Your task to perform on an android device: toggle priority inbox in the gmail app Image 0: 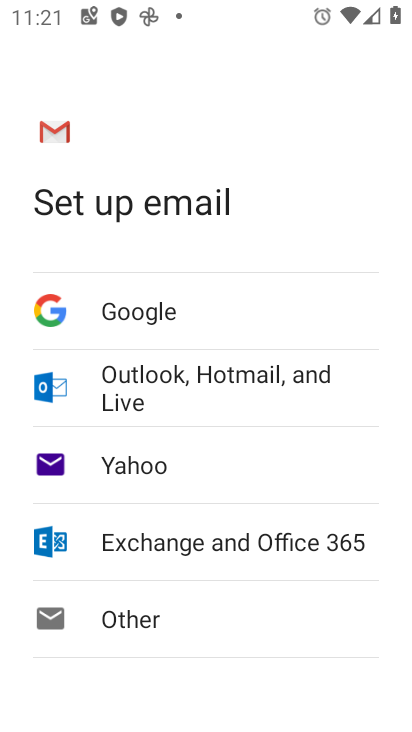
Step 0: press home button
Your task to perform on an android device: toggle priority inbox in the gmail app Image 1: 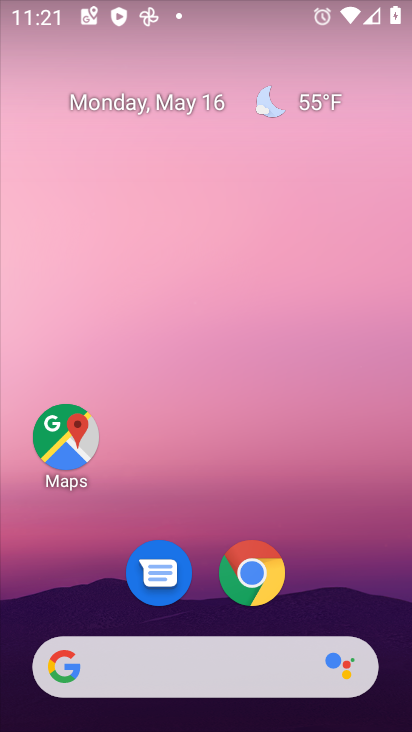
Step 1: drag from (345, 507) to (239, 201)
Your task to perform on an android device: toggle priority inbox in the gmail app Image 2: 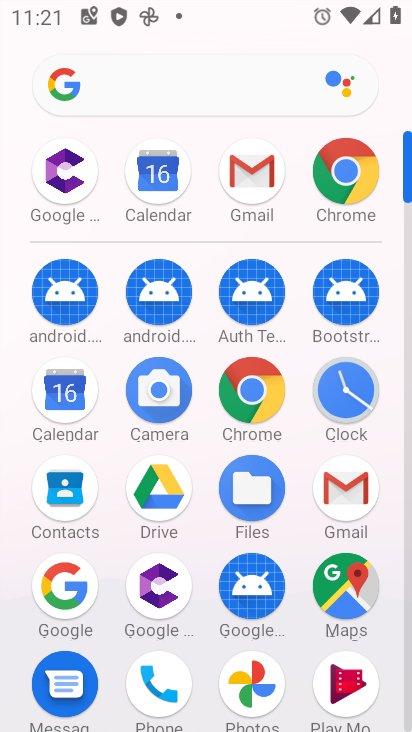
Step 2: click (337, 498)
Your task to perform on an android device: toggle priority inbox in the gmail app Image 3: 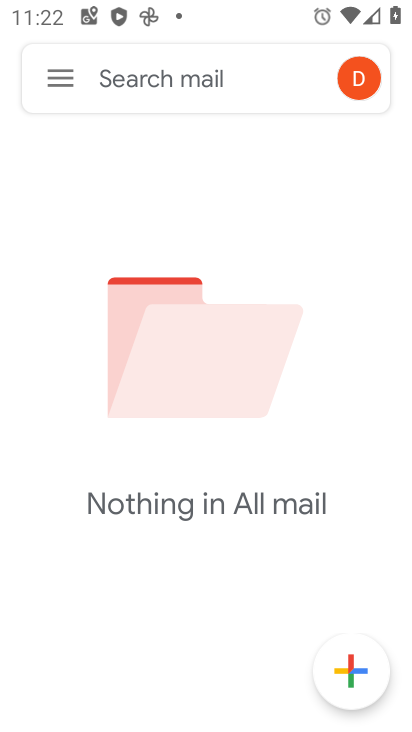
Step 3: click (53, 82)
Your task to perform on an android device: toggle priority inbox in the gmail app Image 4: 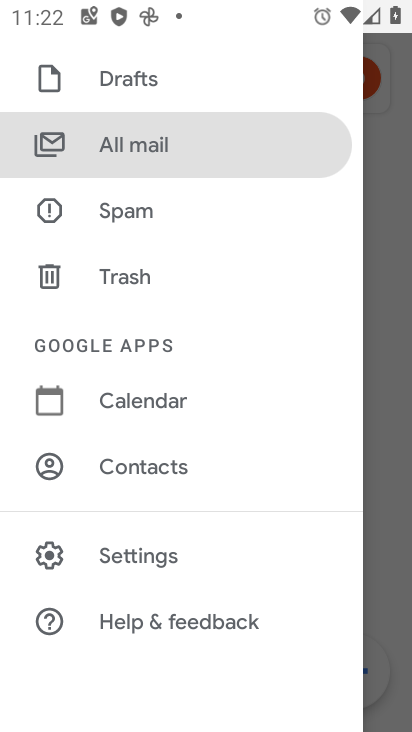
Step 4: click (162, 562)
Your task to perform on an android device: toggle priority inbox in the gmail app Image 5: 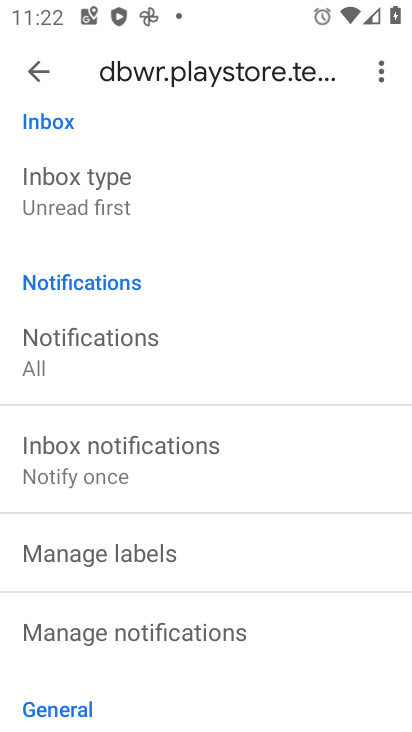
Step 5: click (121, 211)
Your task to perform on an android device: toggle priority inbox in the gmail app Image 6: 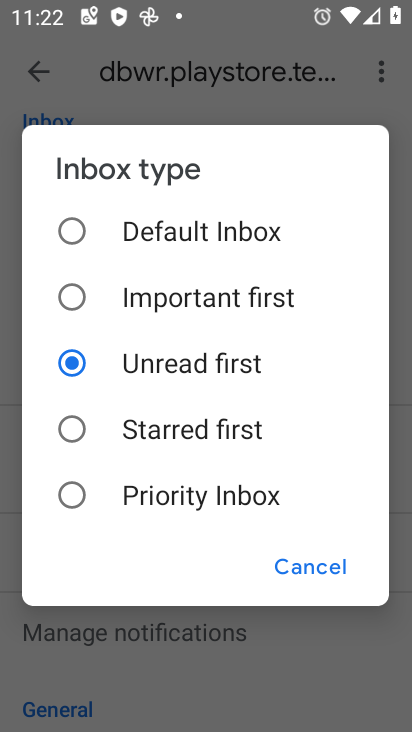
Step 6: click (173, 496)
Your task to perform on an android device: toggle priority inbox in the gmail app Image 7: 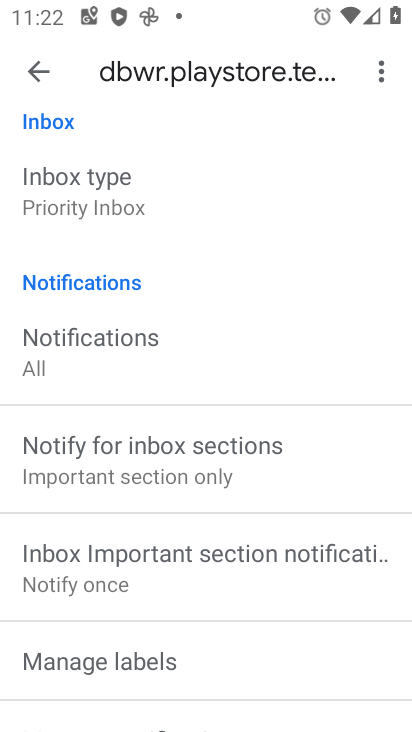
Step 7: task complete